Your task to perform on an android device: Search for jbl flip 4 on bestbuy.com, select the first entry, add it to the cart, then select checkout. Image 0: 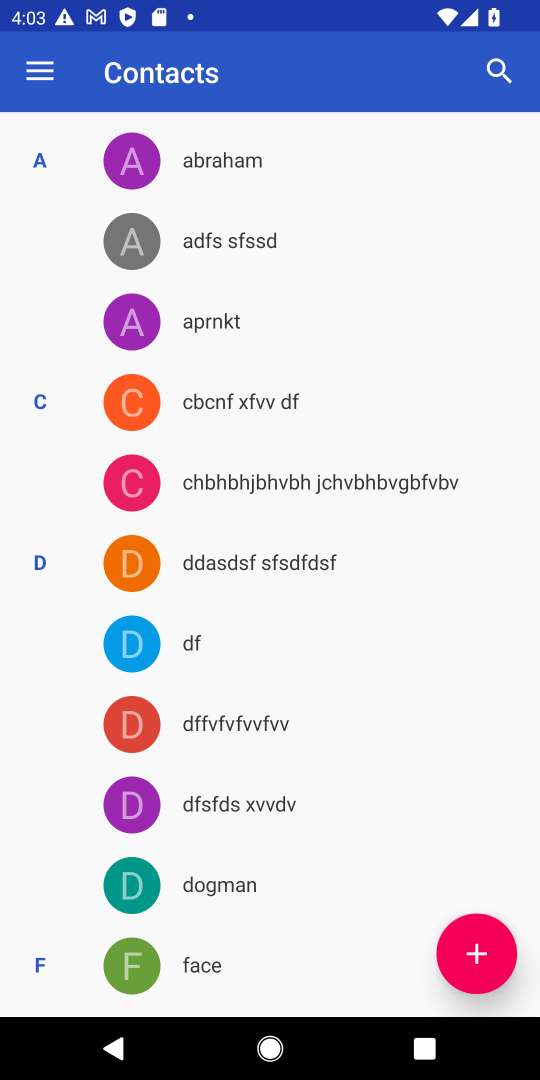
Step 0: press home button
Your task to perform on an android device: Search for jbl flip 4 on bestbuy.com, select the first entry, add it to the cart, then select checkout. Image 1: 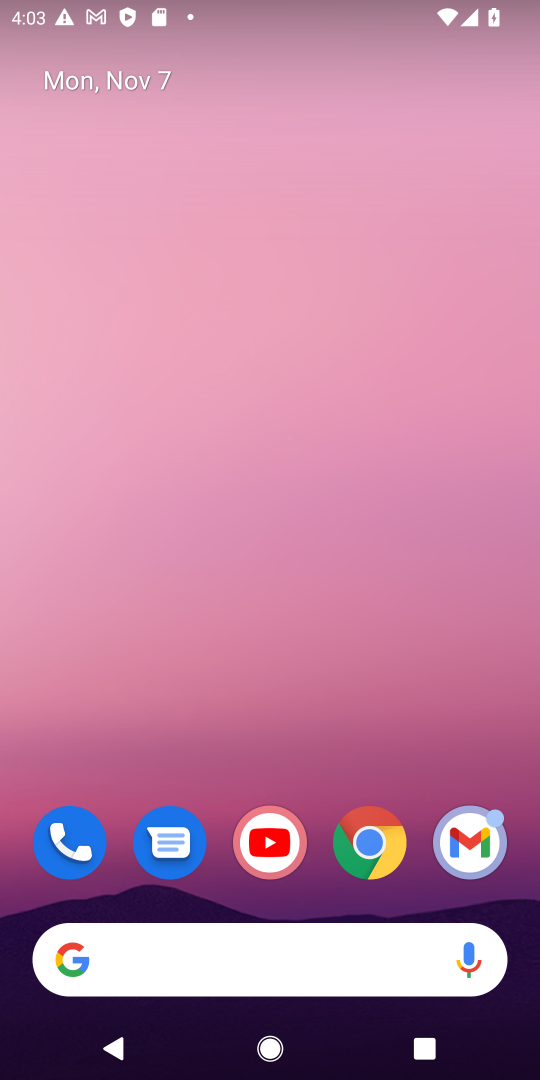
Step 1: drag from (219, 873) to (247, 108)
Your task to perform on an android device: Search for jbl flip 4 on bestbuy.com, select the first entry, add it to the cart, then select checkout. Image 2: 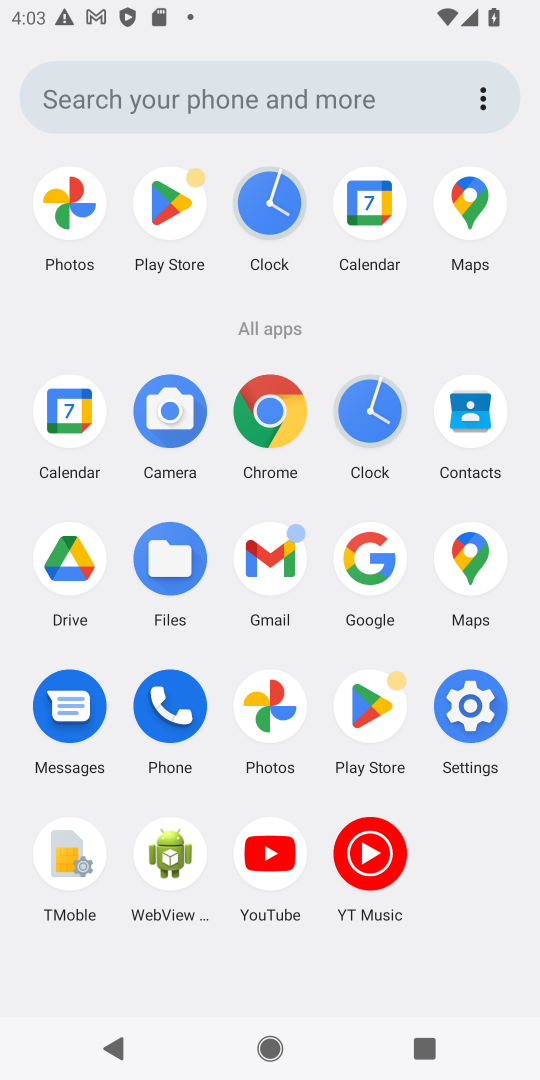
Step 2: click (274, 424)
Your task to perform on an android device: Search for jbl flip 4 on bestbuy.com, select the first entry, add it to the cart, then select checkout. Image 3: 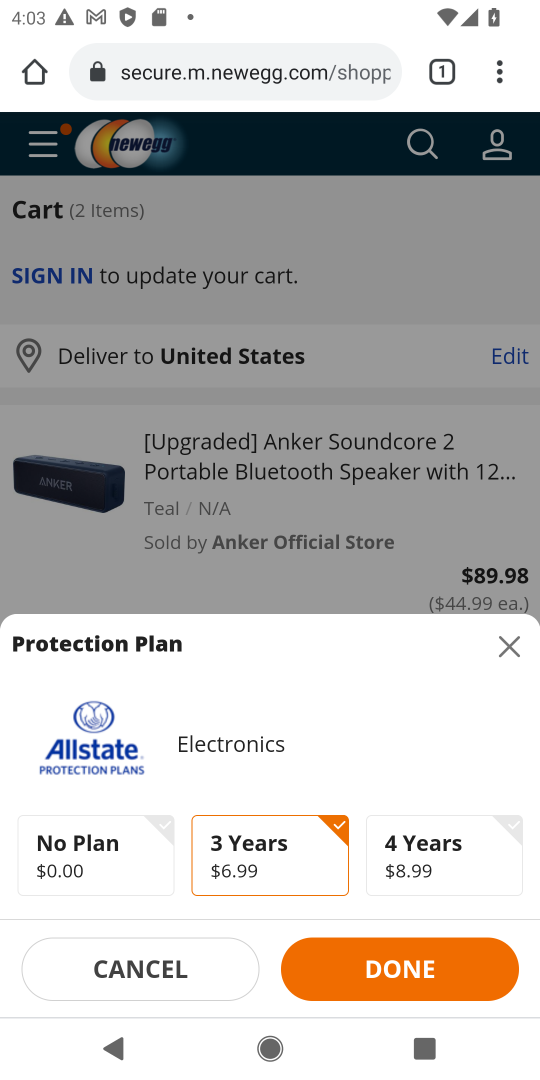
Step 3: click (187, 78)
Your task to perform on an android device: Search for jbl flip 4 on bestbuy.com, select the first entry, add it to the cart, then select checkout. Image 4: 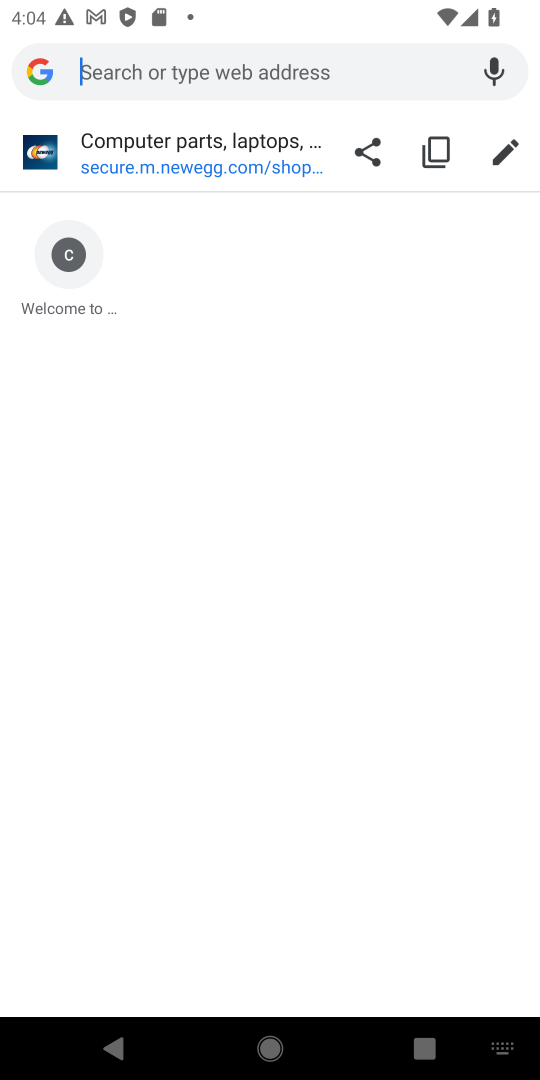
Step 4: type "bestbuy.com,"
Your task to perform on an android device: Search for jbl flip 4 on bestbuy.com, select the first entry, add it to the cart, then select checkout. Image 5: 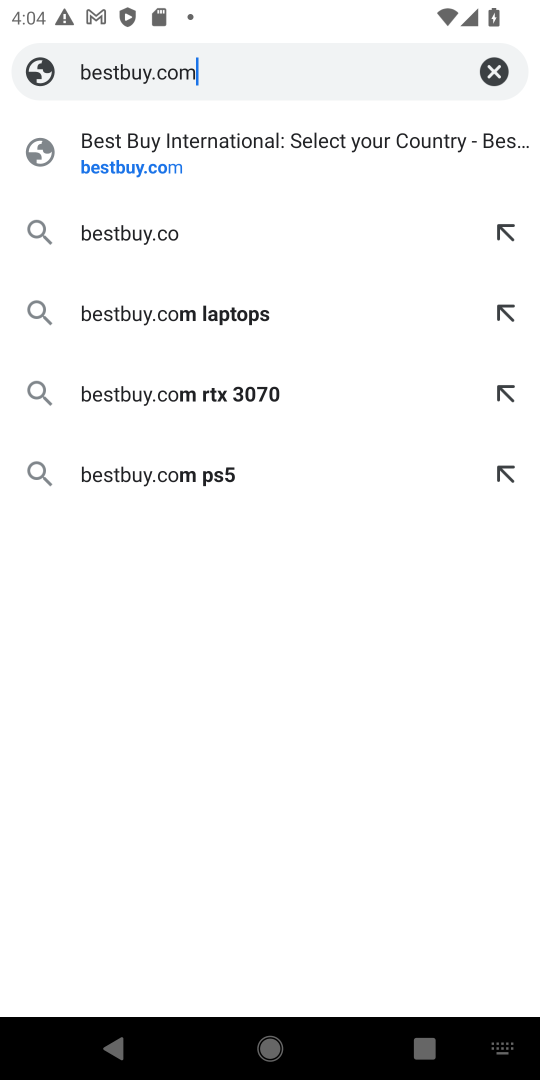
Step 5: press enter
Your task to perform on an android device: Search for jbl flip 4 on bestbuy.com, select the first entry, add it to the cart, then select checkout. Image 6: 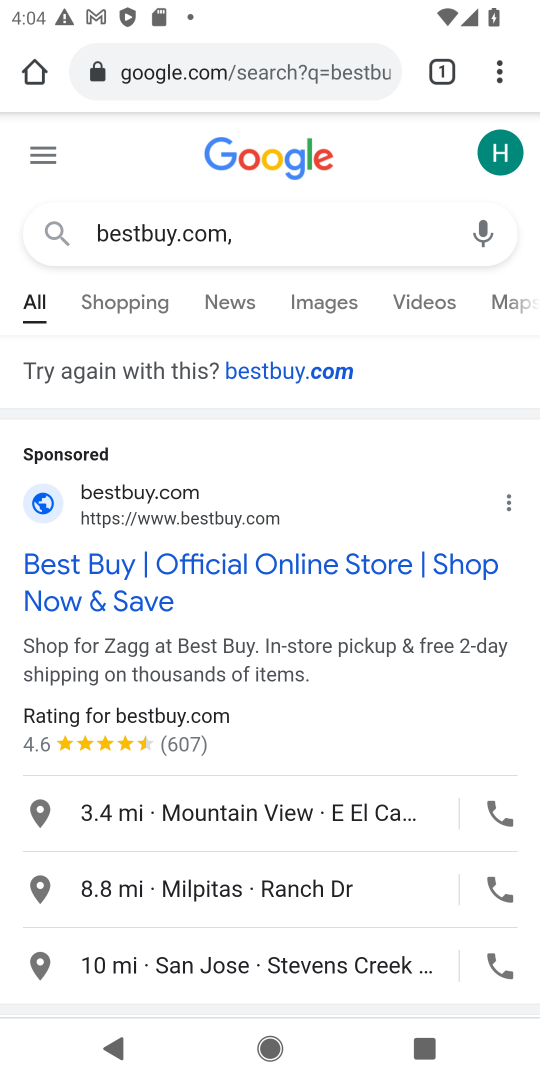
Step 6: click (106, 512)
Your task to perform on an android device: Search for jbl flip 4 on bestbuy.com, select the first entry, add it to the cart, then select checkout. Image 7: 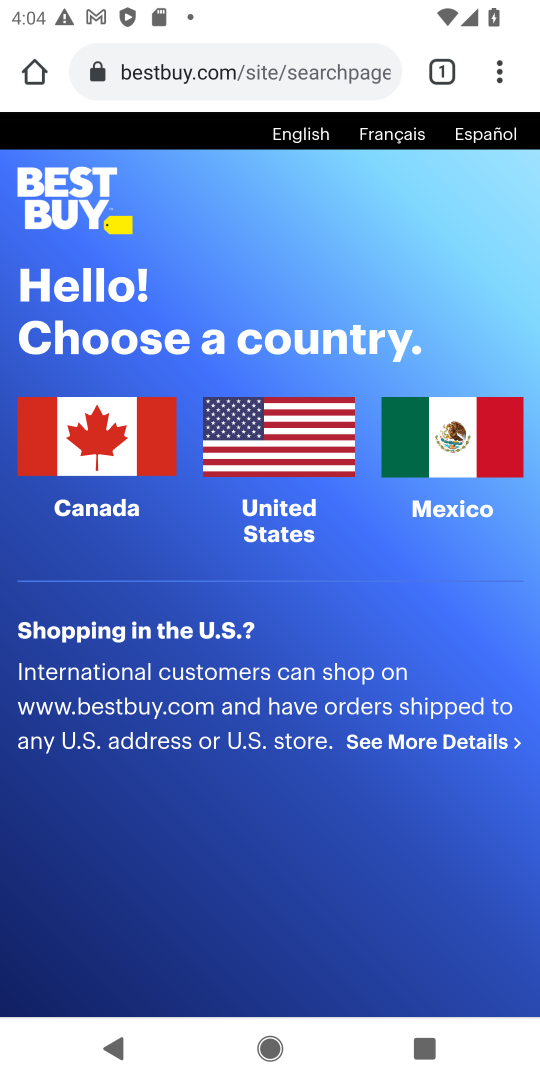
Step 7: click (86, 430)
Your task to perform on an android device: Search for jbl flip 4 on bestbuy.com, select the first entry, add it to the cart, then select checkout. Image 8: 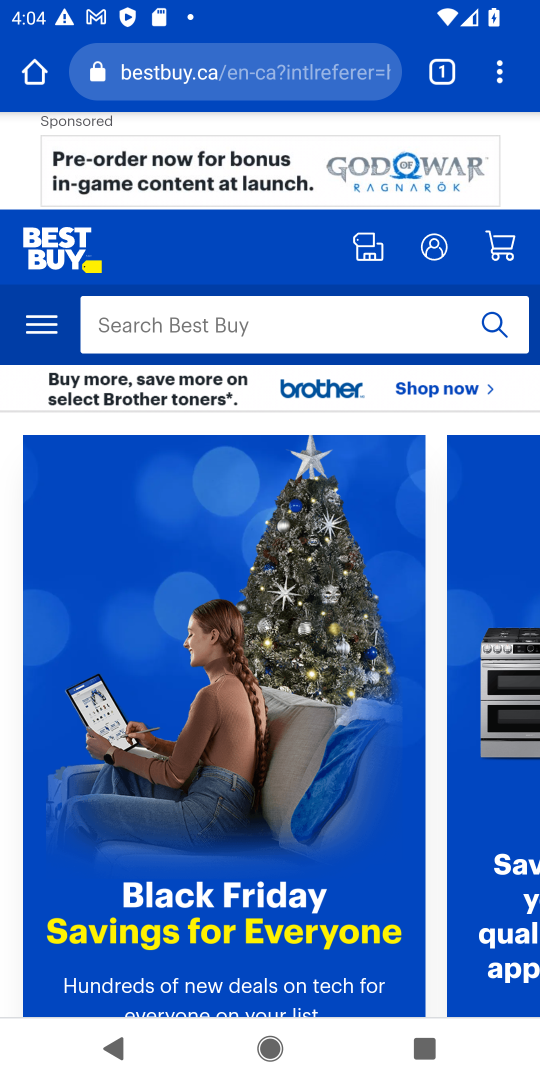
Step 8: click (217, 322)
Your task to perform on an android device: Search for jbl flip 4 on bestbuy.com, select the first entry, add it to the cart, then select checkout. Image 9: 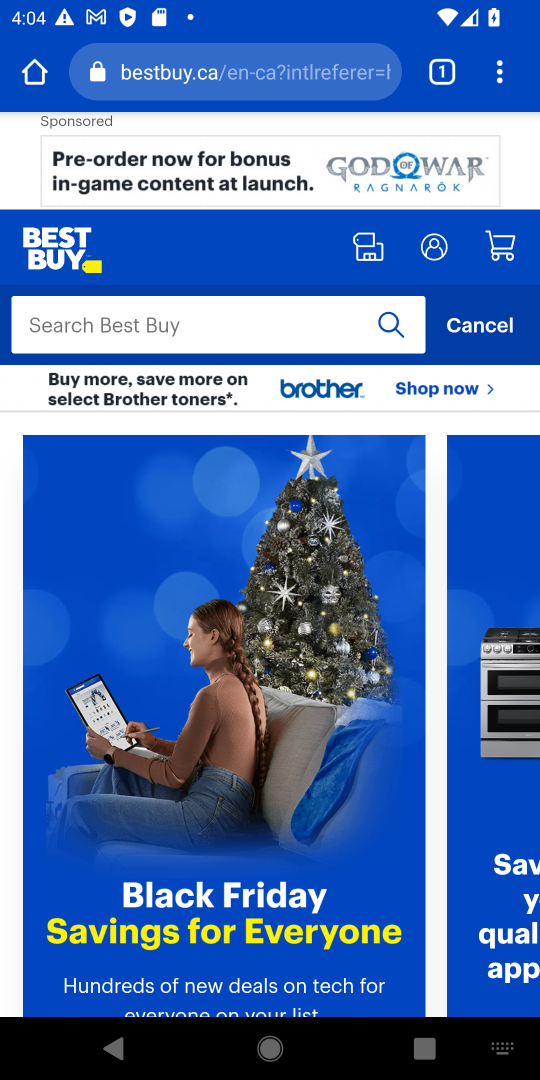
Step 9: type " jbl flip 4 "
Your task to perform on an android device: Search for jbl flip 4 on bestbuy.com, select the first entry, add it to the cart, then select checkout. Image 10: 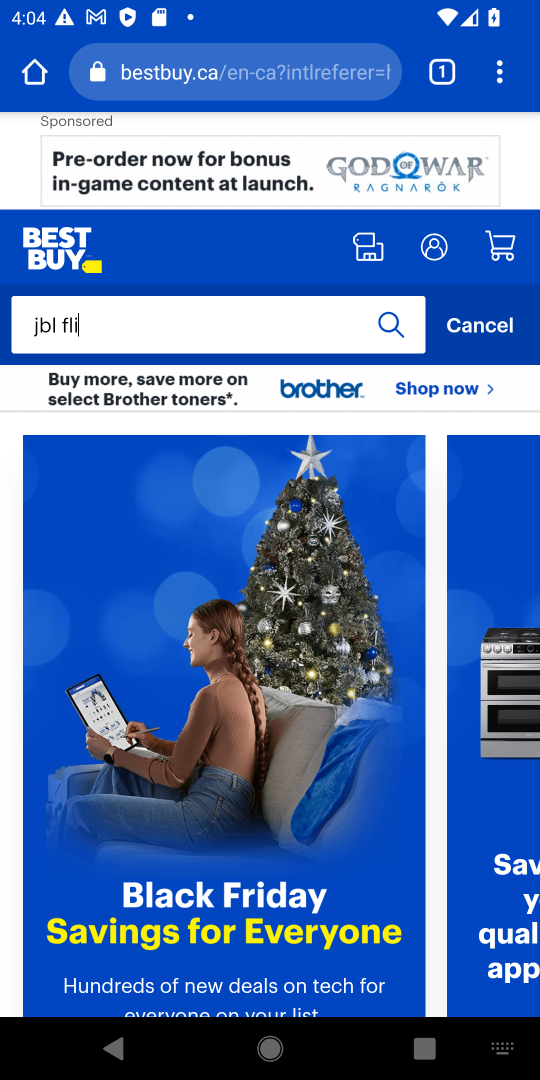
Step 10: press enter
Your task to perform on an android device: Search for jbl flip 4 on bestbuy.com, select the first entry, add it to the cart, then select checkout. Image 11: 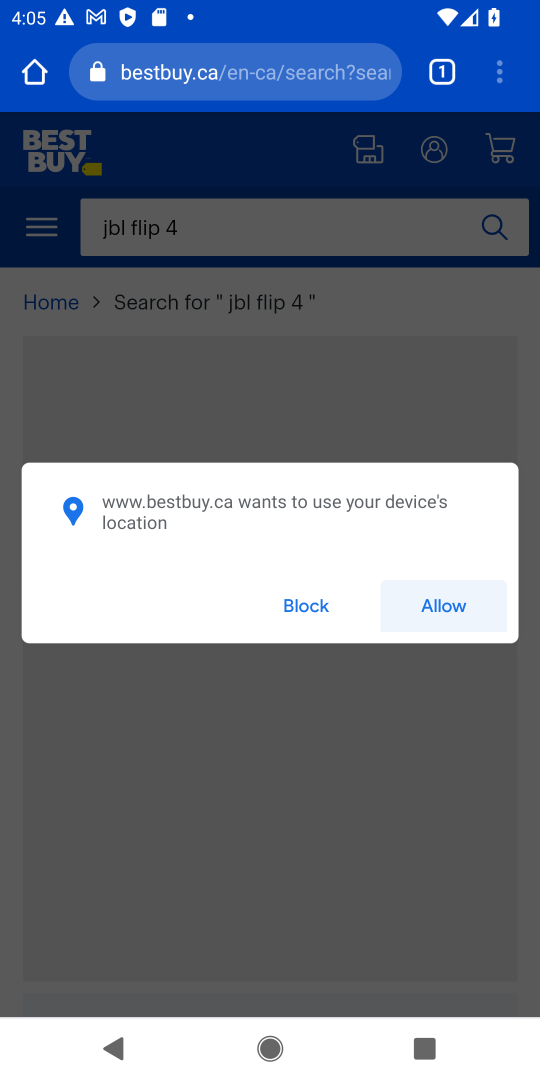
Step 11: click (460, 609)
Your task to perform on an android device: Search for jbl flip 4 on bestbuy.com, select the first entry, add it to the cart, then select checkout. Image 12: 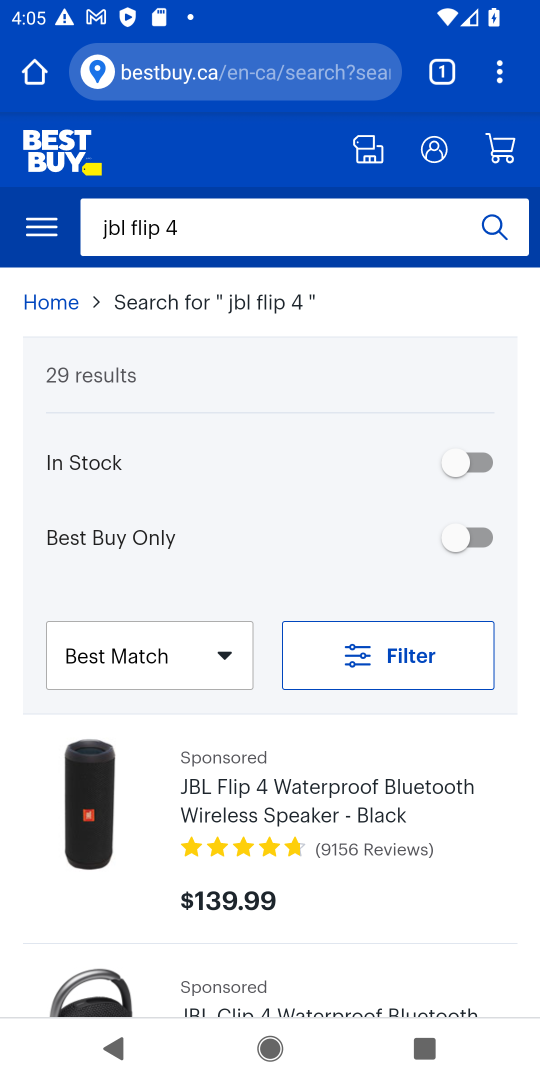
Step 12: drag from (276, 863) to (277, 330)
Your task to perform on an android device: Search for jbl flip 4 on bestbuy.com, select the first entry, add it to the cart, then select checkout. Image 13: 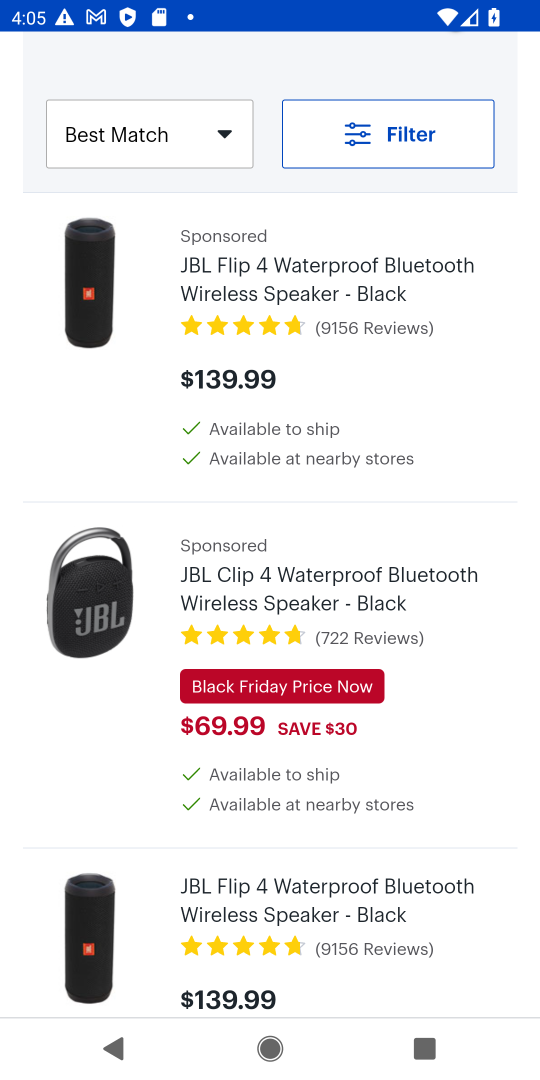
Step 13: click (93, 296)
Your task to perform on an android device: Search for jbl flip 4 on bestbuy.com, select the first entry, add it to the cart, then select checkout. Image 14: 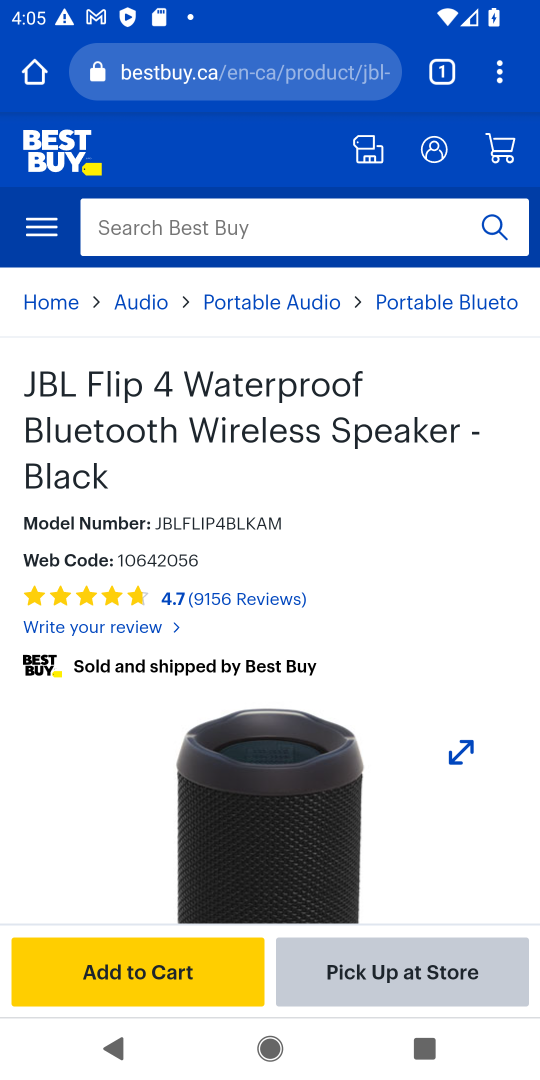
Step 14: drag from (300, 728) to (302, 412)
Your task to perform on an android device: Search for jbl flip 4 on bestbuy.com, select the first entry, add it to the cart, then select checkout. Image 15: 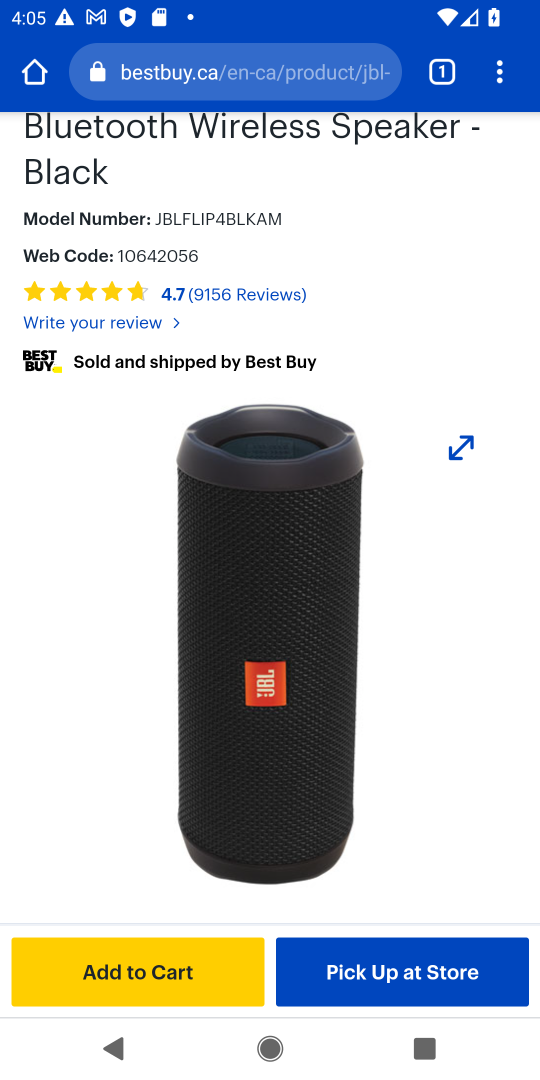
Step 15: click (136, 958)
Your task to perform on an android device: Search for jbl flip 4 on bestbuy.com, select the first entry, add it to the cart, then select checkout. Image 16: 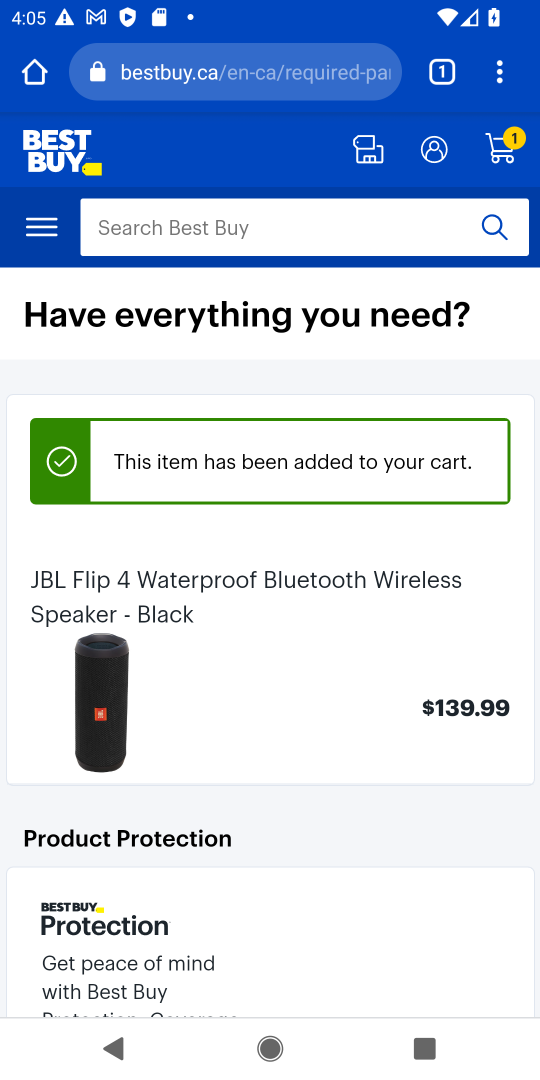
Step 16: drag from (248, 883) to (316, 373)
Your task to perform on an android device: Search for jbl flip 4 on bestbuy.com, select the first entry, add it to the cart, then select checkout. Image 17: 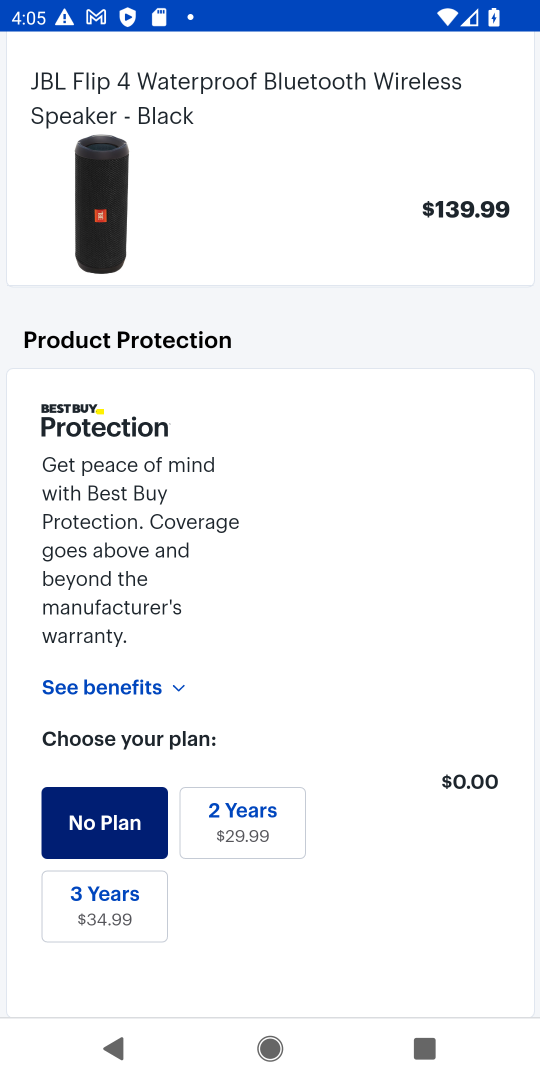
Step 17: drag from (252, 895) to (349, 440)
Your task to perform on an android device: Search for jbl flip 4 on bestbuy.com, select the first entry, add it to the cart, then select checkout. Image 18: 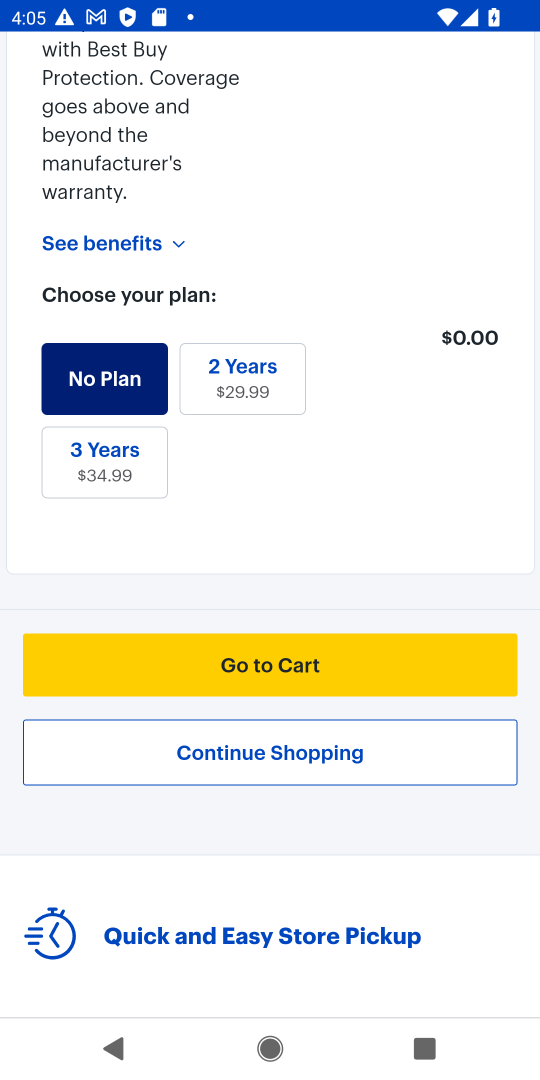
Step 18: click (304, 667)
Your task to perform on an android device: Search for jbl flip 4 on bestbuy.com, select the first entry, add it to the cart, then select checkout. Image 19: 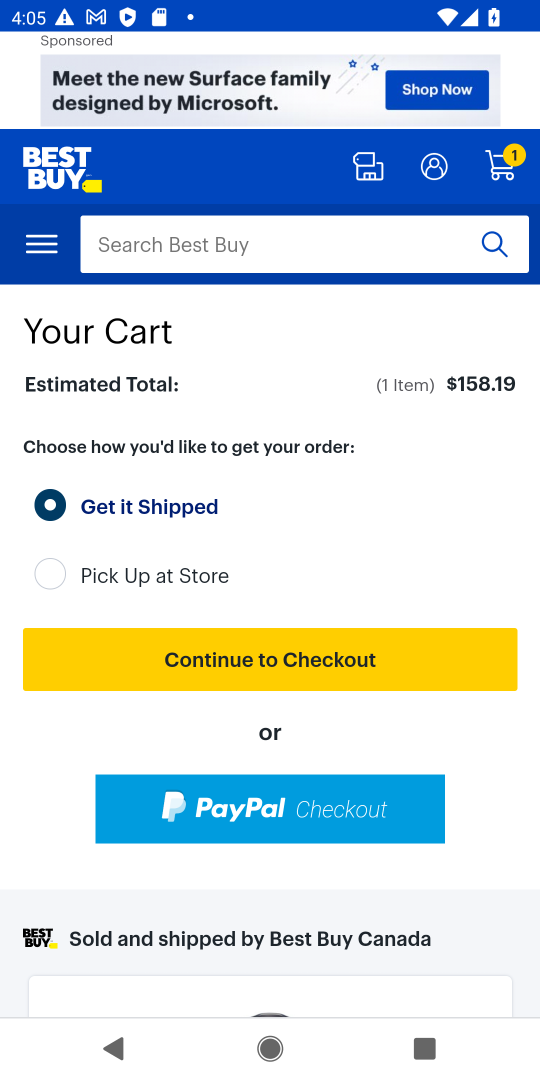
Step 19: click (341, 668)
Your task to perform on an android device: Search for jbl flip 4 on bestbuy.com, select the first entry, add it to the cart, then select checkout. Image 20: 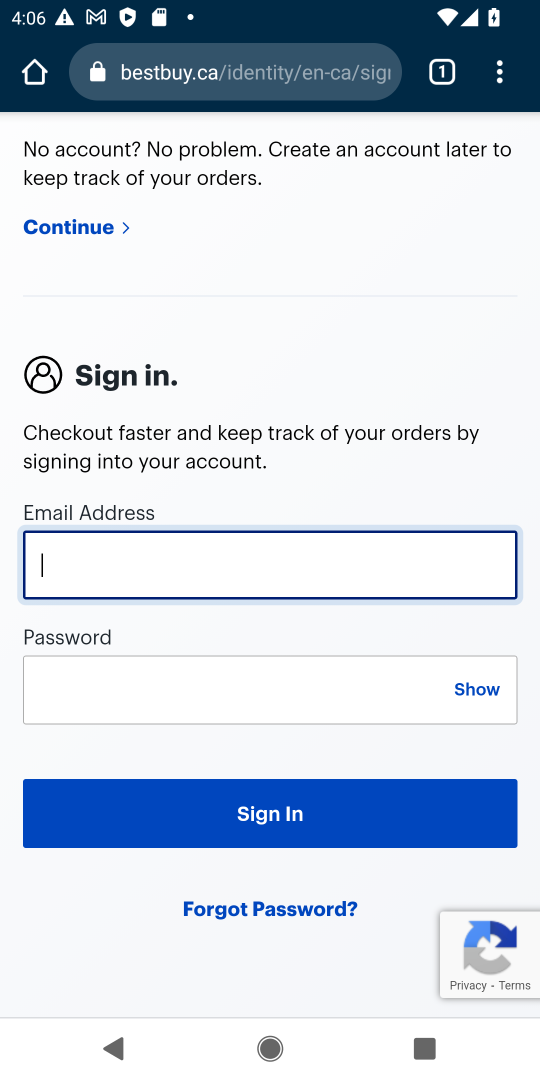
Step 20: task complete